Your task to perform on an android device: Set the phone to "Do not disturb". Image 0: 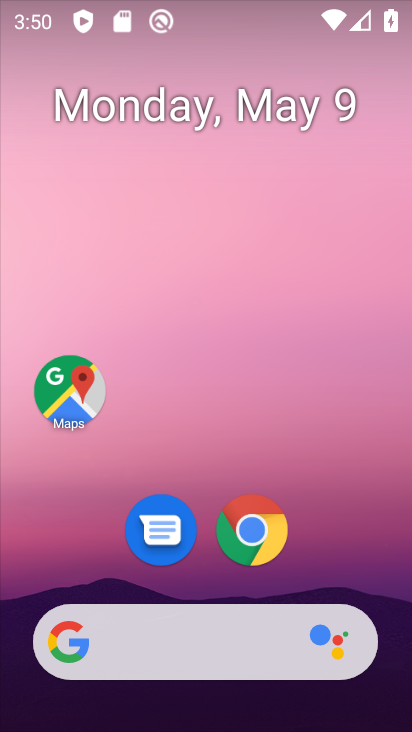
Step 0: drag from (5, 289) to (382, 290)
Your task to perform on an android device: Set the phone to "Do not disturb". Image 1: 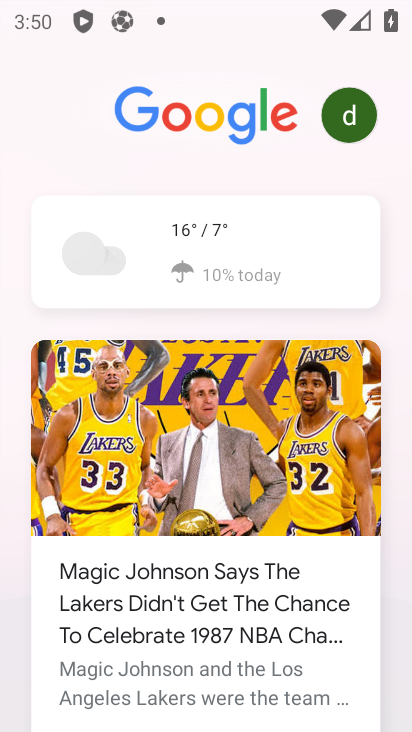
Step 1: drag from (202, 640) to (214, 189)
Your task to perform on an android device: Set the phone to "Do not disturb". Image 2: 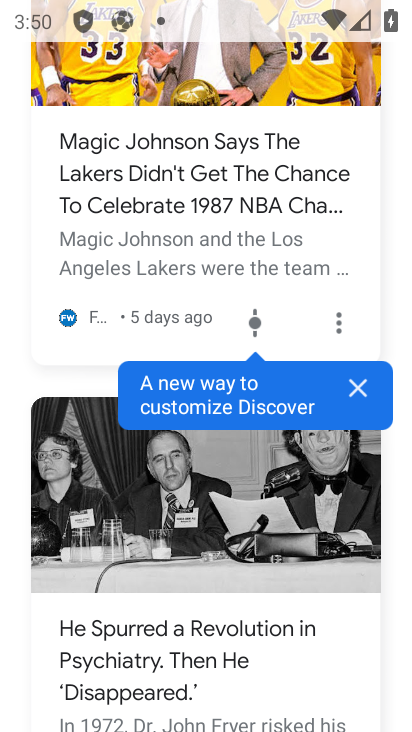
Step 2: drag from (212, 675) to (219, 249)
Your task to perform on an android device: Set the phone to "Do not disturb". Image 3: 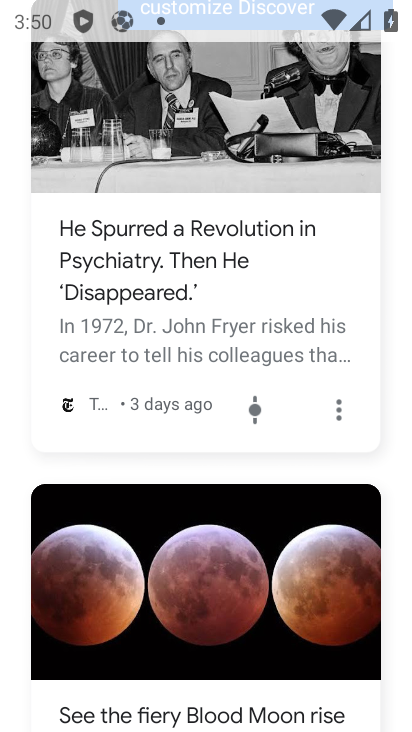
Step 3: drag from (217, 670) to (200, 260)
Your task to perform on an android device: Set the phone to "Do not disturb". Image 4: 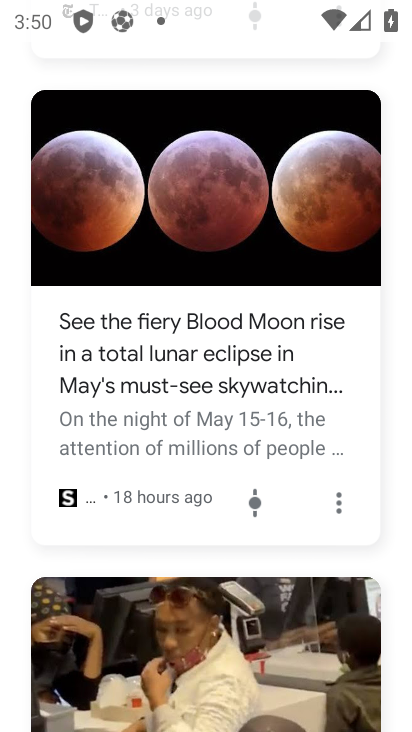
Step 4: drag from (174, 9) to (158, 585)
Your task to perform on an android device: Set the phone to "Do not disturb". Image 5: 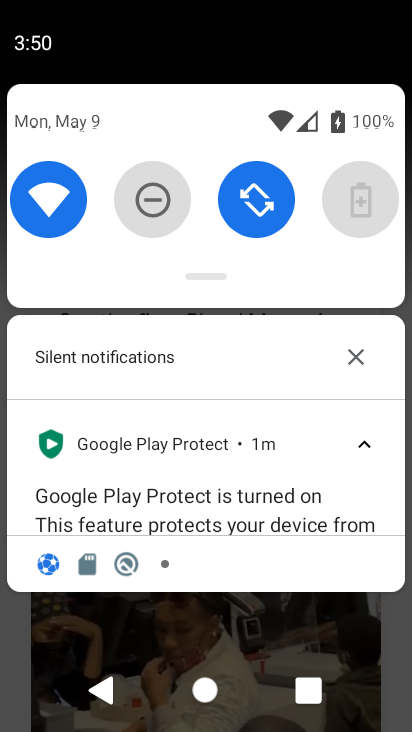
Step 5: click (148, 181)
Your task to perform on an android device: Set the phone to "Do not disturb". Image 6: 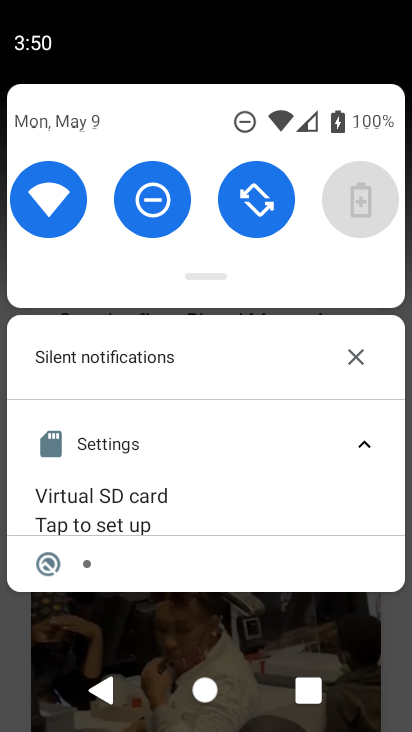
Step 6: task complete